Your task to perform on an android device: change the clock display to digital Image 0: 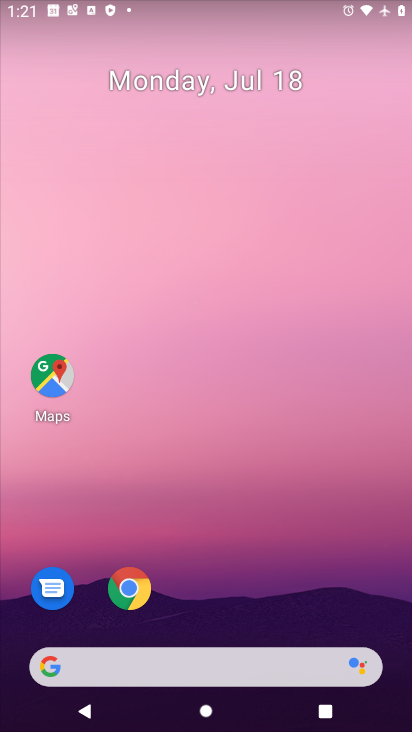
Step 0: drag from (200, 711) to (208, 186)
Your task to perform on an android device: change the clock display to digital Image 1: 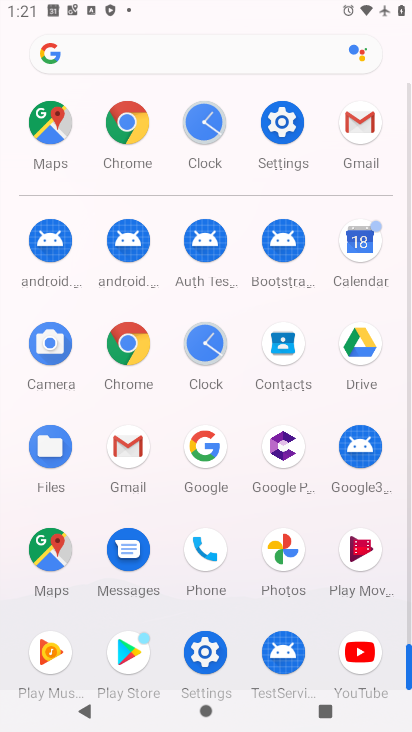
Step 1: click (287, 140)
Your task to perform on an android device: change the clock display to digital Image 2: 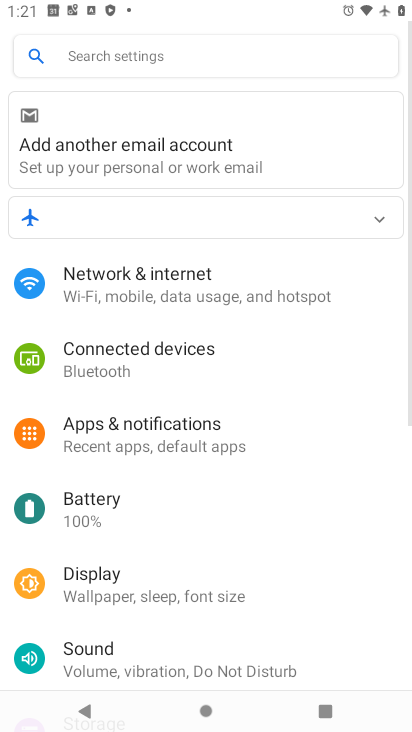
Step 2: press home button
Your task to perform on an android device: change the clock display to digital Image 3: 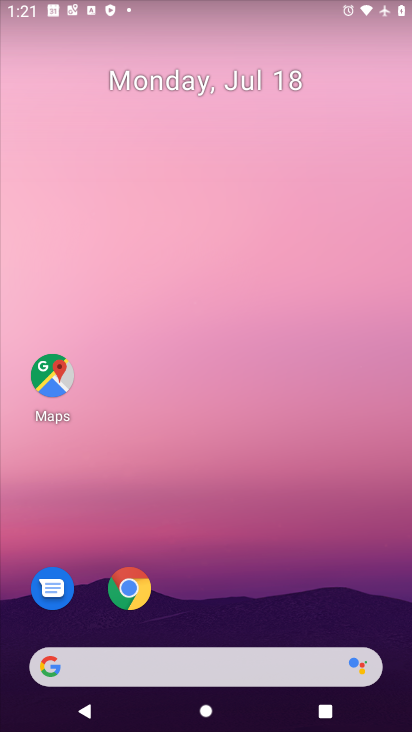
Step 3: drag from (210, 621) to (237, 191)
Your task to perform on an android device: change the clock display to digital Image 4: 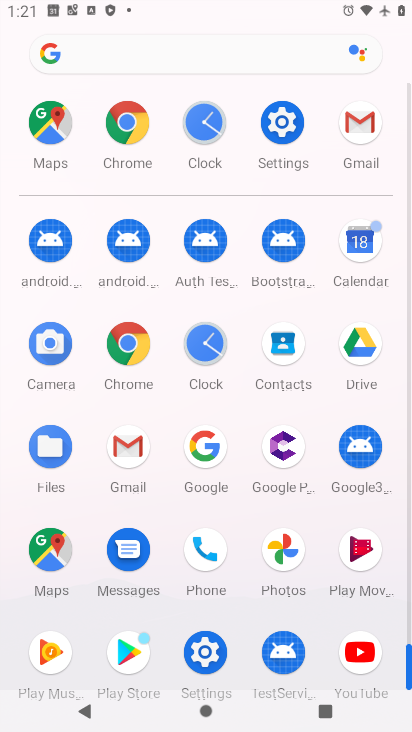
Step 4: click (203, 140)
Your task to perform on an android device: change the clock display to digital Image 5: 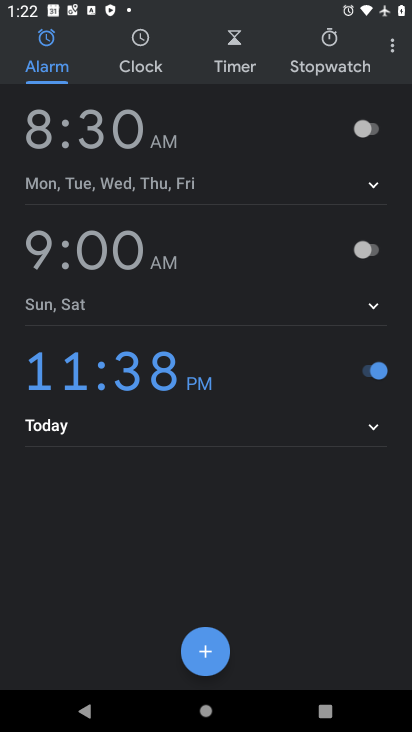
Step 5: click (394, 55)
Your task to perform on an android device: change the clock display to digital Image 6: 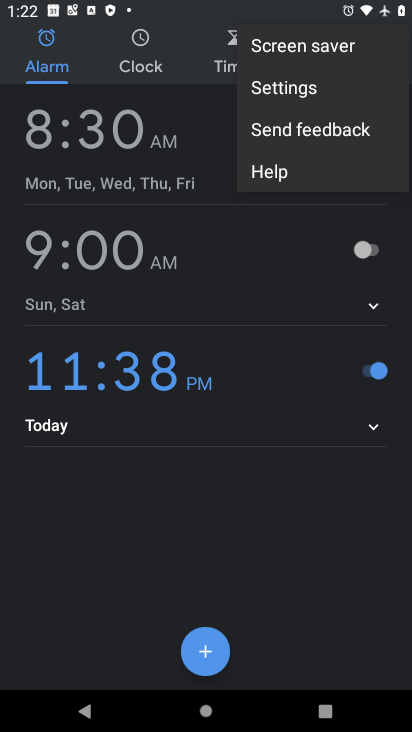
Step 6: click (295, 97)
Your task to perform on an android device: change the clock display to digital Image 7: 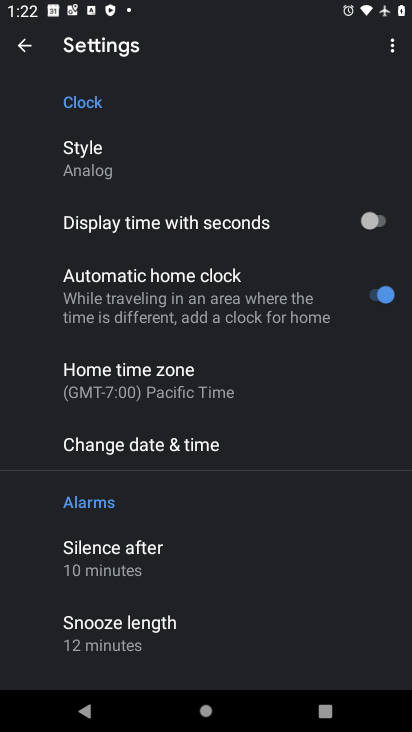
Step 7: click (160, 182)
Your task to perform on an android device: change the clock display to digital Image 8: 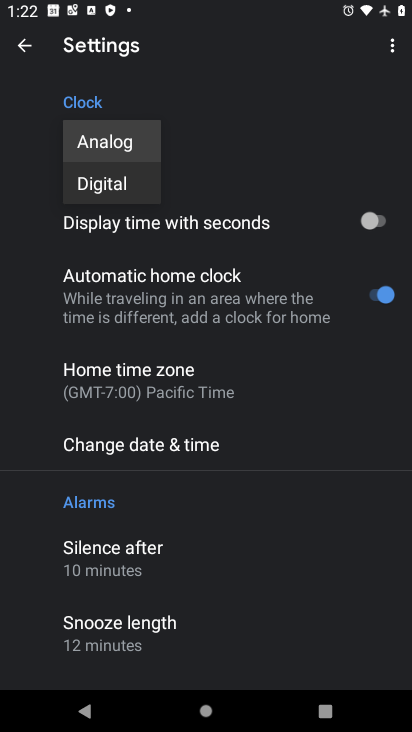
Step 8: click (128, 193)
Your task to perform on an android device: change the clock display to digital Image 9: 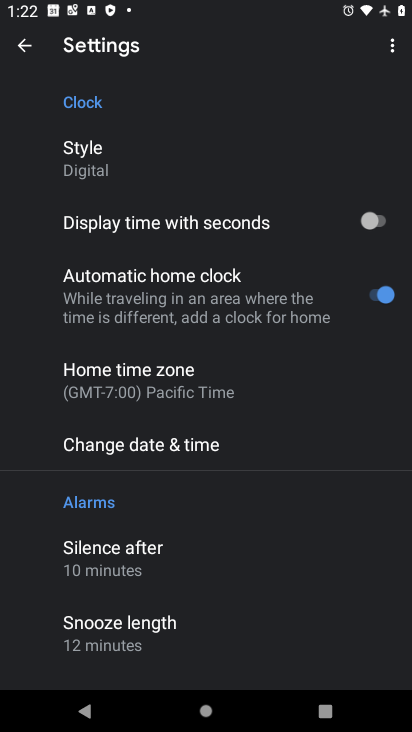
Step 9: task complete